Your task to perform on an android device: Go to wifi settings Image 0: 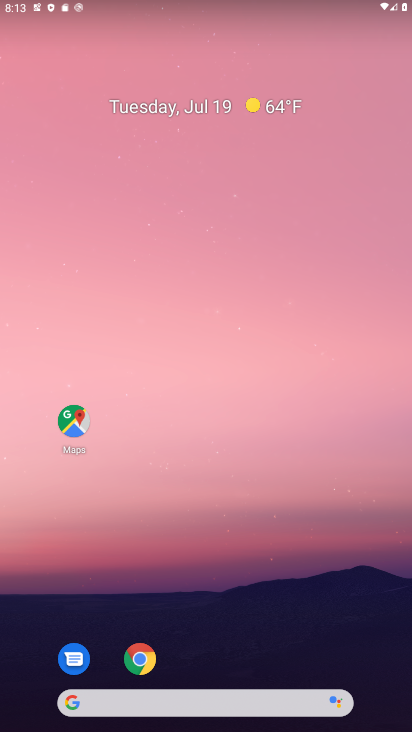
Step 0: task complete